Your task to perform on an android device: Is it going to rain today? Image 0: 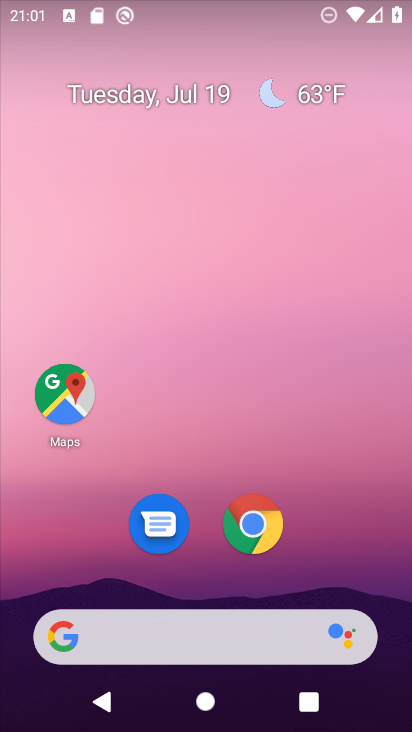
Step 0: click (221, 633)
Your task to perform on an android device: Is it going to rain today? Image 1: 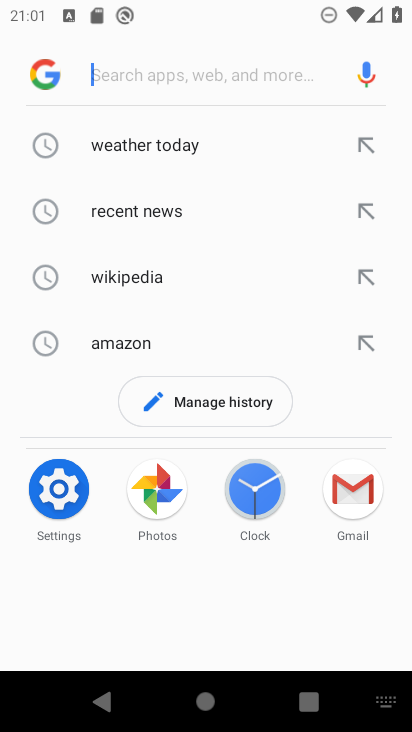
Step 1: click (171, 147)
Your task to perform on an android device: Is it going to rain today? Image 2: 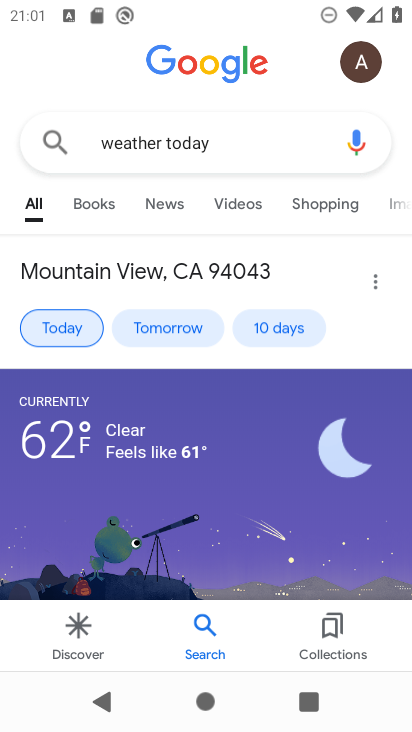
Step 2: click (64, 321)
Your task to perform on an android device: Is it going to rain today? Image 3: 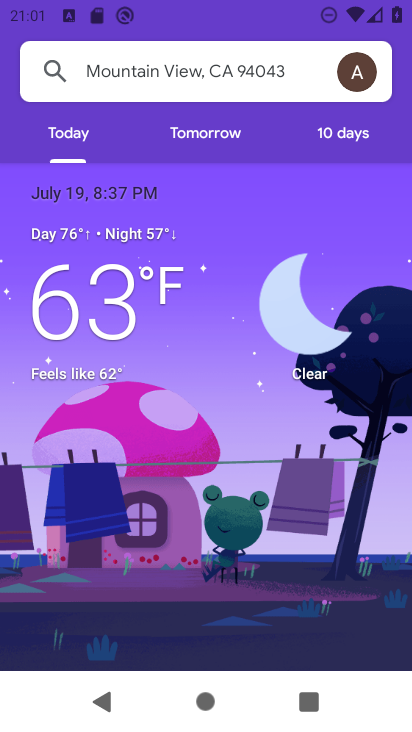
Step 3: task complete